Your task to perform on an android device: Open the Play Movies app and select the watchlist tab. Image 0: 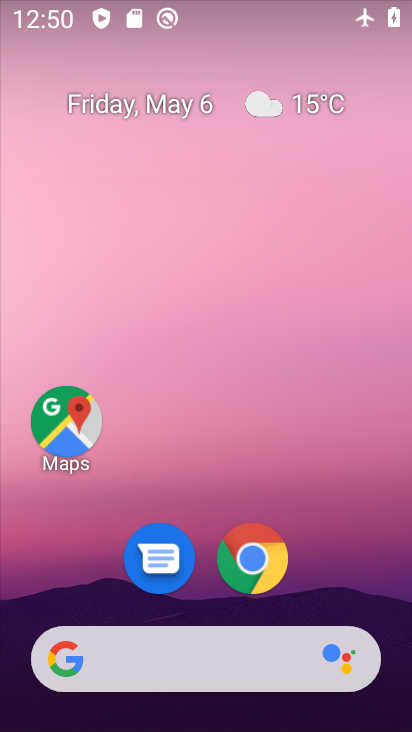
Step 0: drag from (217, 724) to (204, 214)
Your task to perform on an android device: Open the Play Movies app and select the watchlist tab. Image 1: 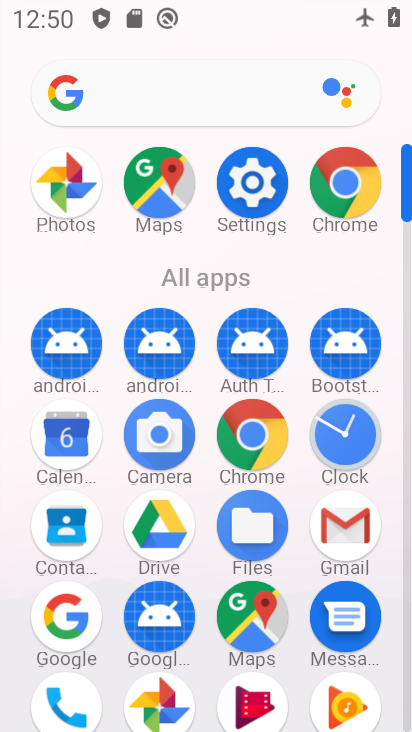
Step 1: click (259, 704)
Your task to perform on an android device: Open the Play Movies app and select the watchlist tab. Image 2: 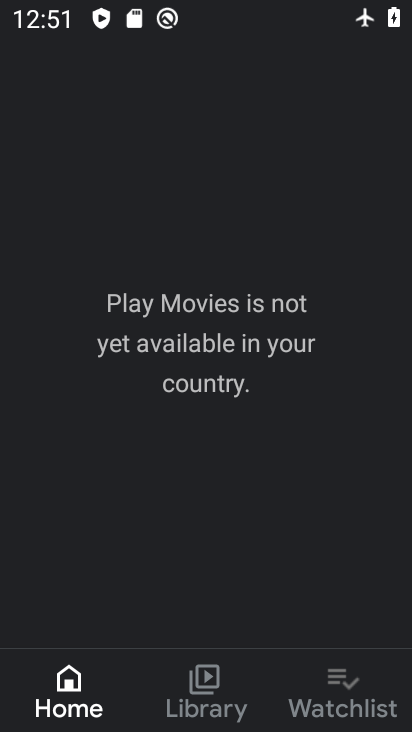
Step 2: click (348, 686)
Your task to perform on an android device: Open the Play Movies app and select the watchlist tab. Image 3: 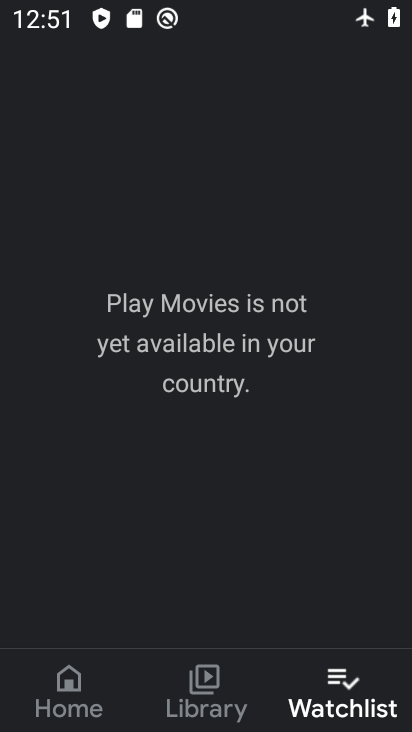
Step 3: task complete